Your task to perform on an android device: Open privacy settings Image 0: 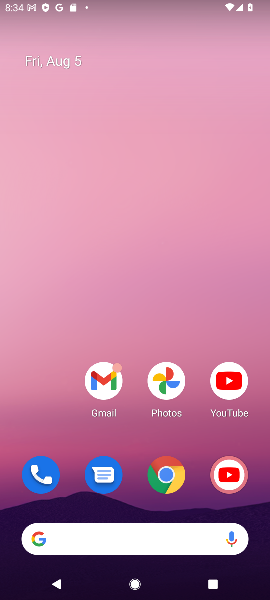
Step 0: drag from (90, 560) to (132, 226)
Your task to perform on an android device: Open privacy settings Image 1: 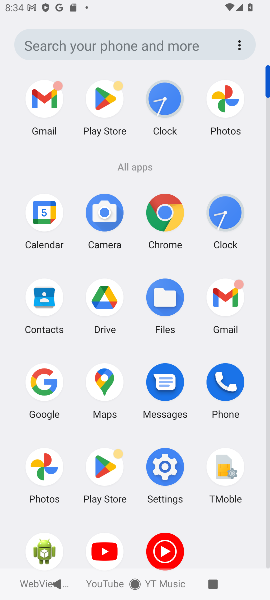
Step 1: click (180, 461)
Your task to perform on an android device: Open privacy settings Image 2: 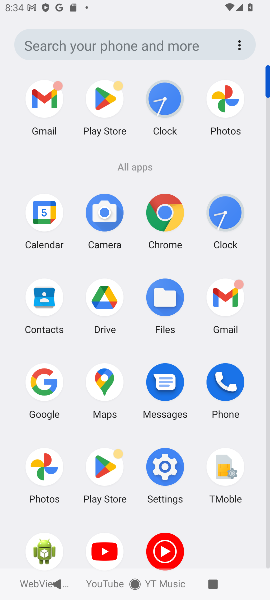
Step 2: click (180, 461)
Your task to perform on an android device: Open privacy settings Image 3: 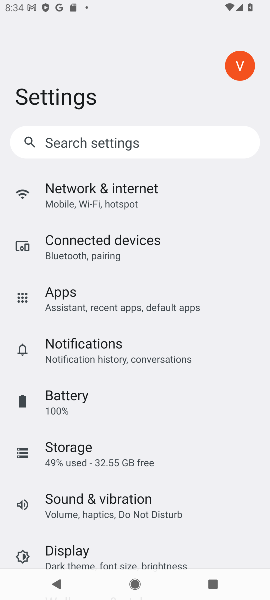
Step 3: drag from (174, 468) to (192, 99)
Your task to perform on an android device: Open privacy settings Image 4: 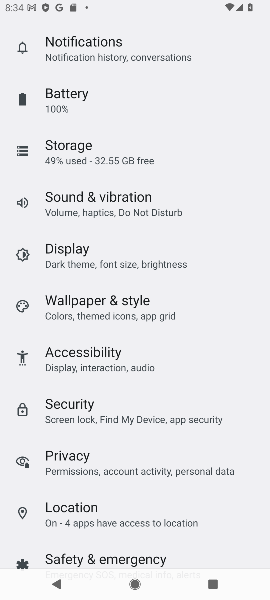
Step 4: click (127, 463)
Your task to perform on an android device: Open privacy settings Image 5: 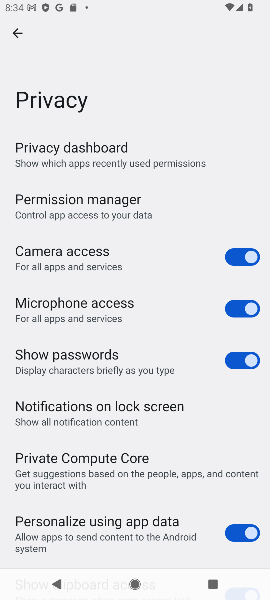
Step 5: task complete